Your task to perform on an android device: see sites visited before in the chrome app Image 0: 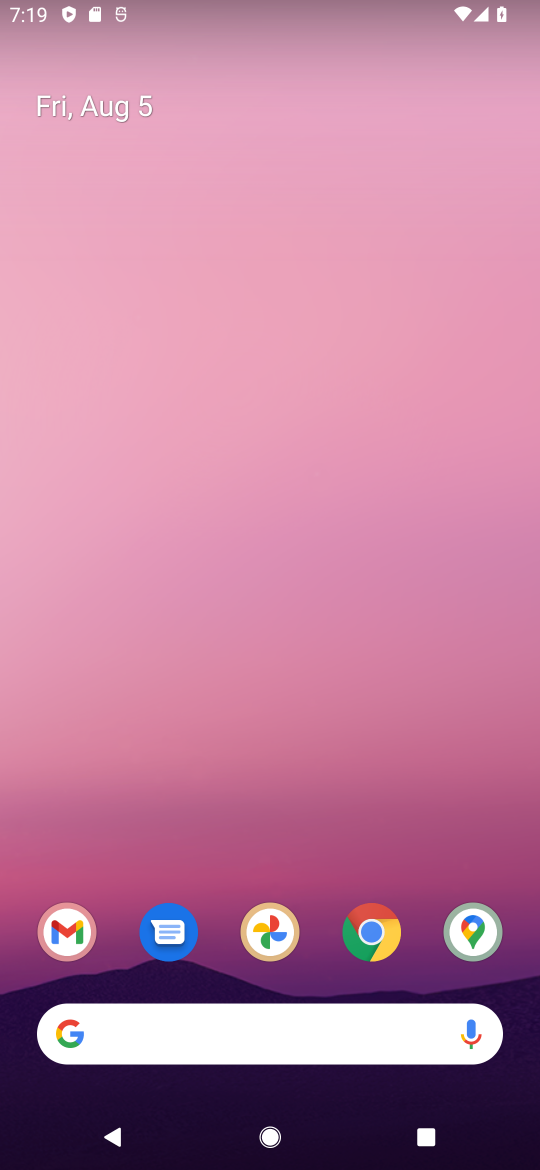
Step 0: drag from (399, 813) to (441, 109)
Your task to perform on an android device: see sites visited before in the chrome app Image 1: 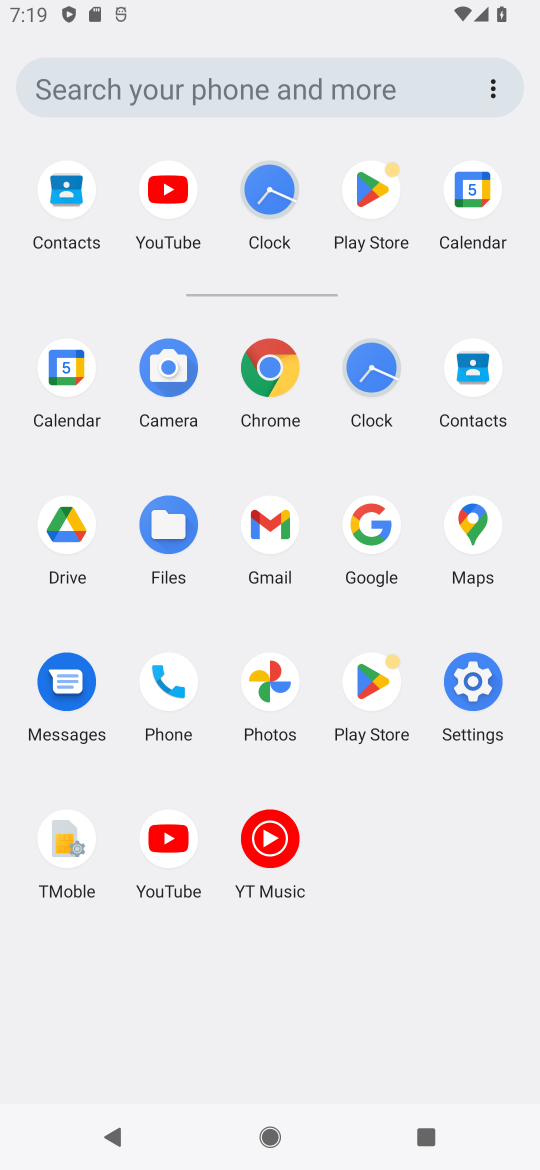
Step 1: click (273, 363)
Your task to perform on an android device: see sites visited before in the chrome app Image 2: 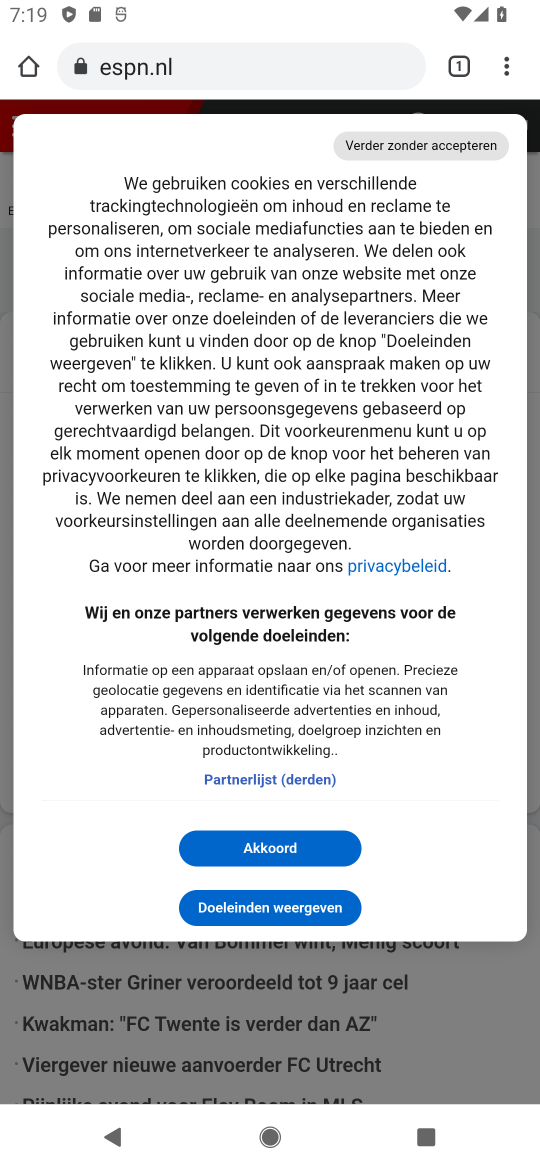
Step 2: task complete